Your task to perform on an android device: open app "WhatsApp Messenger" (install if not already installed), go to login, and select forgot password Image 0: 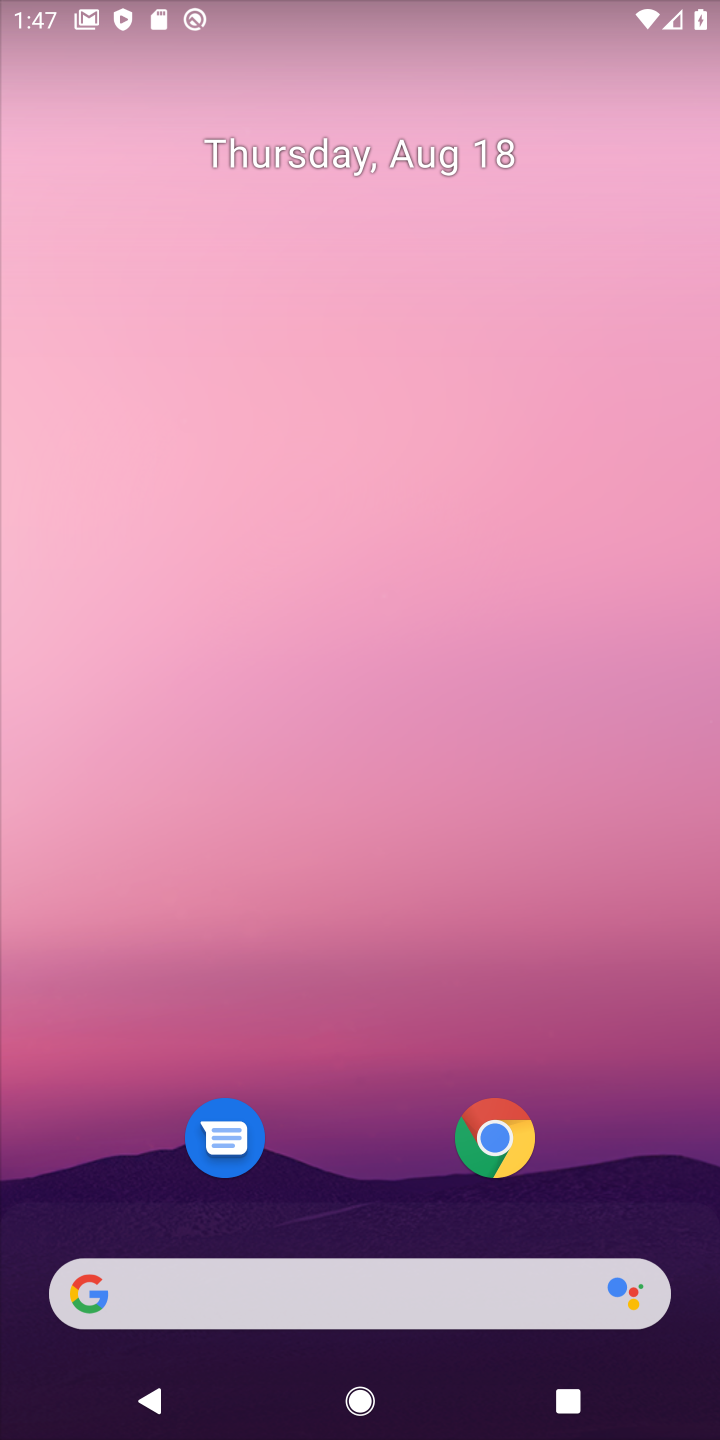
Step 0: drag from (457, 1226) to (569, 275)
Your task to perform on an android device: open app "WhatsApp Messenger" (install if not already installed), go to login, and select forgot password Image 1: 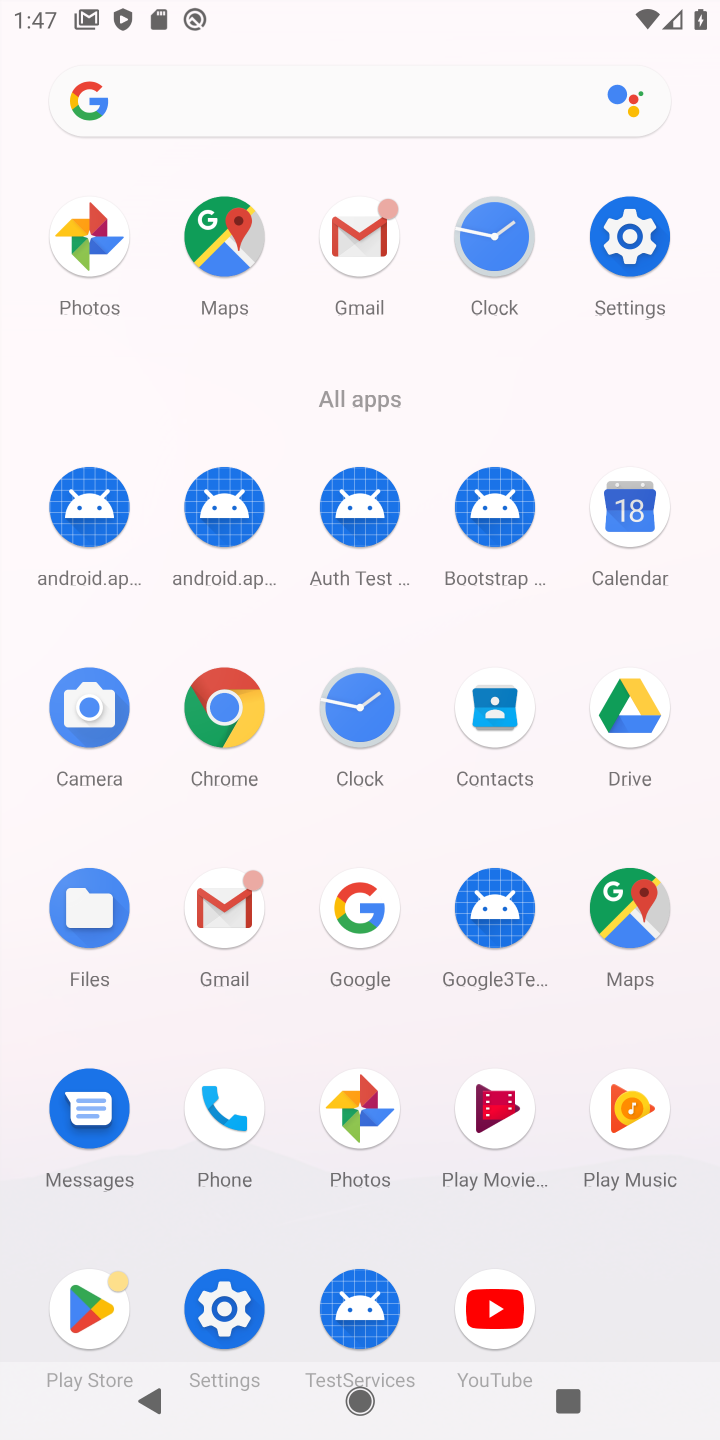
Step 1: drag from (448, 763) to (601, 188)
Your task to perform on an android device: open app "WhatsApp Messenger" (install if not already installed), go to login, and select forgot password Image 2: 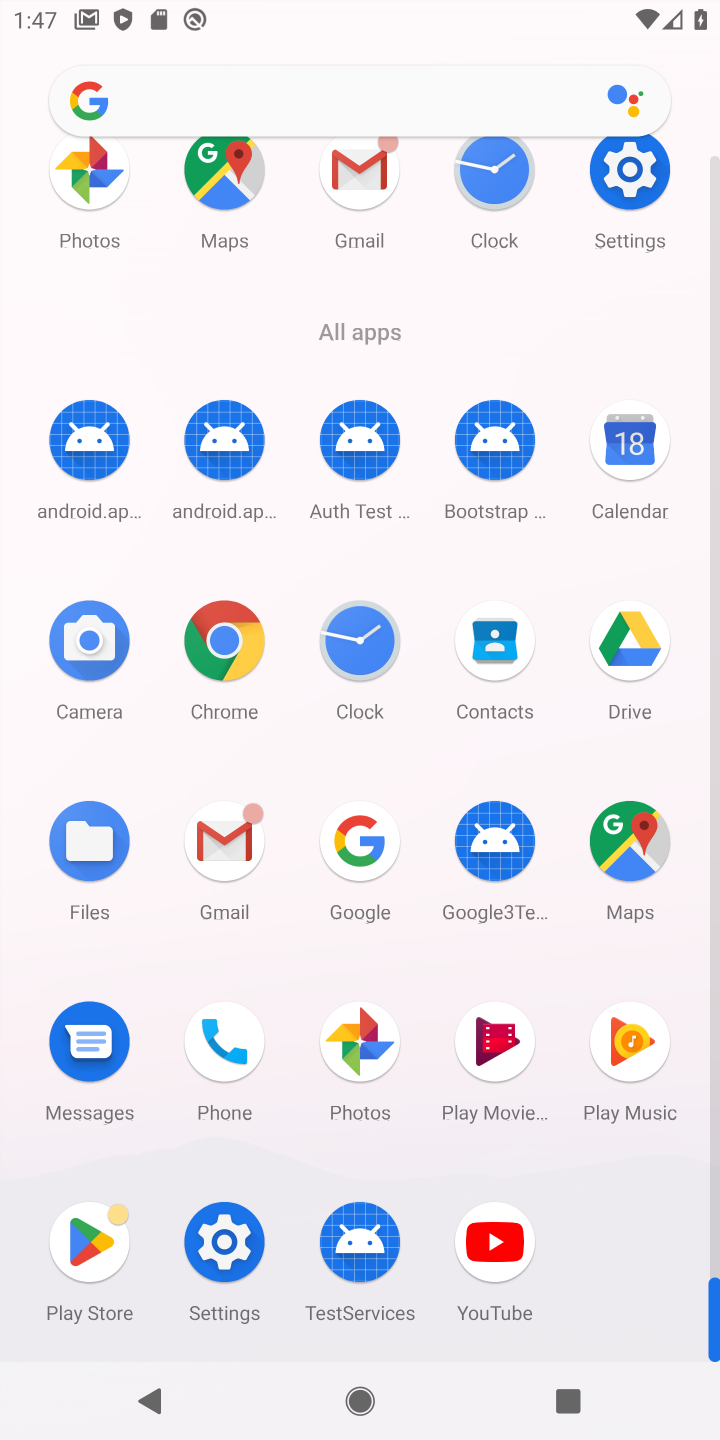
Step 2: click (86, 1260)
Your task to perform on an android device: open app "WhatsApp Messenger" (install if not already installed), go to login, and select forgot password Image 3: 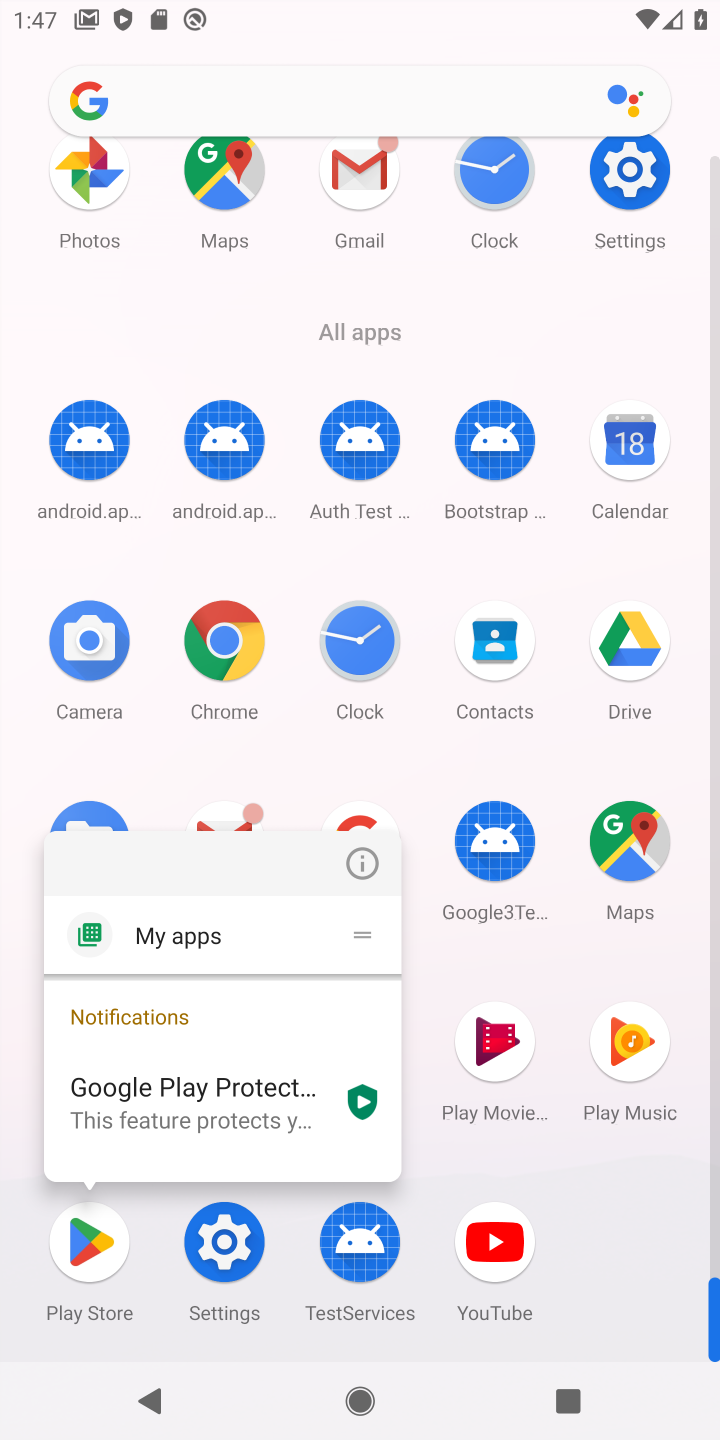
Step 3: click (95, 1267)
Your task to perform on an android device: open app "WhatsApp Messenger" (install if not already installed), go to login, and select forgot password Image 4: 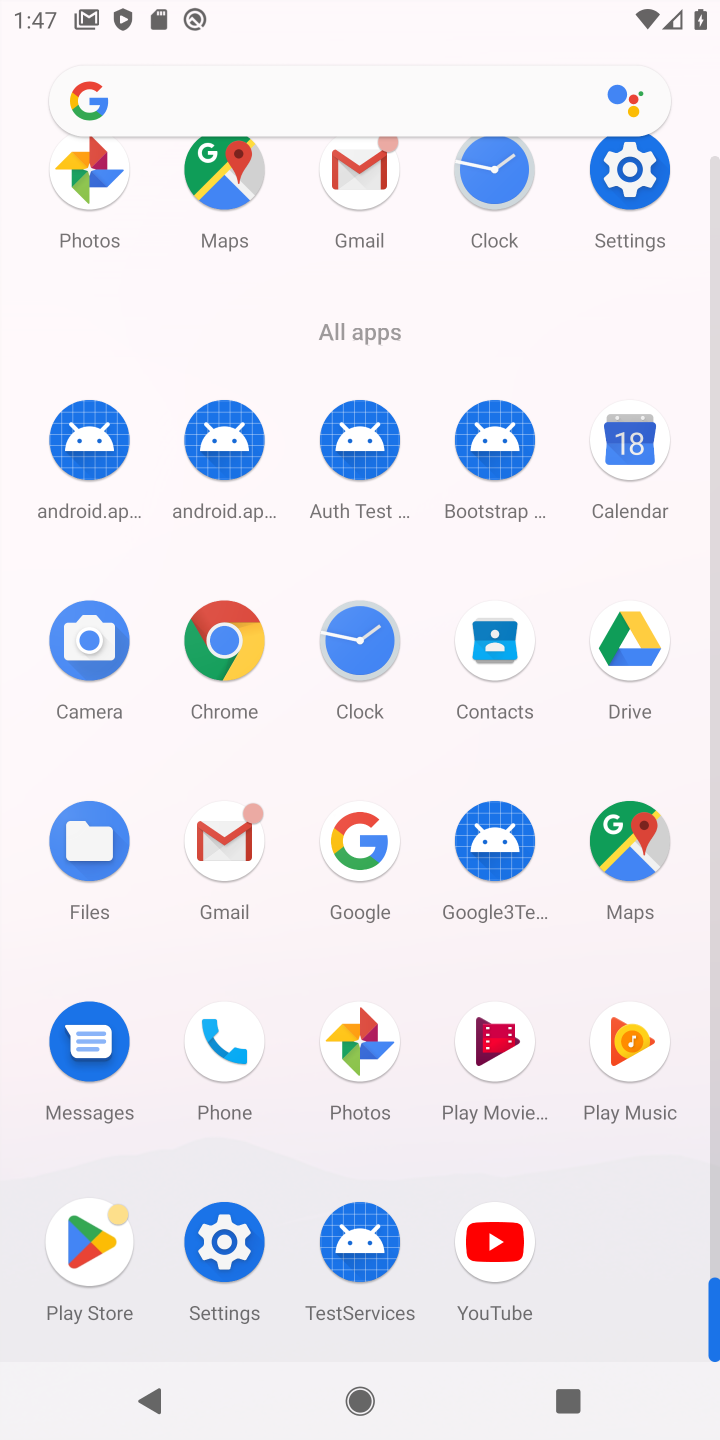
Step 4: click (92, 1263)
Your task to perform on an android device: open app "WhatsApp Messenger" (install if not already installed), go to login, and select forgot password Image 5: 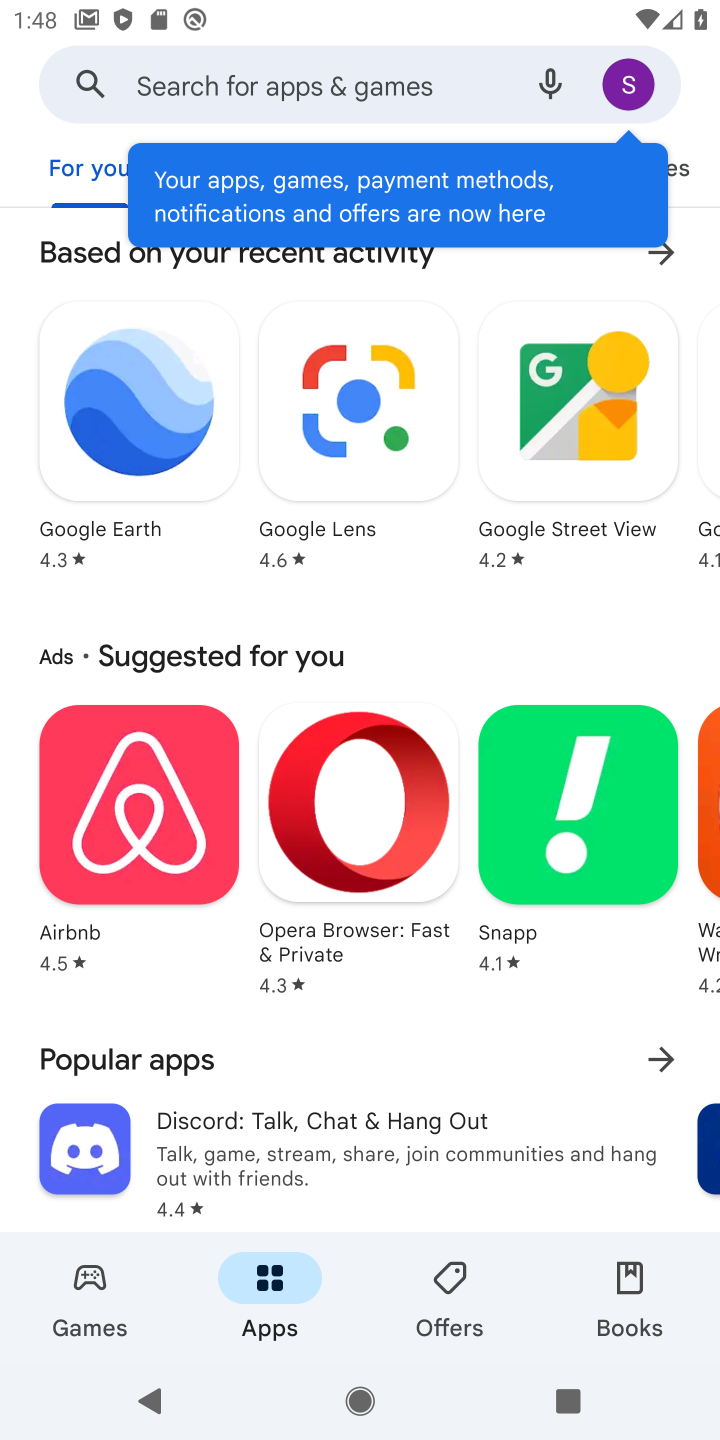
Step 5: click (274, 90)
Your task to perform on an android device: open app "WhatsApp Messenger" (install if not already installed), go to login, and select forgot password Image 6: 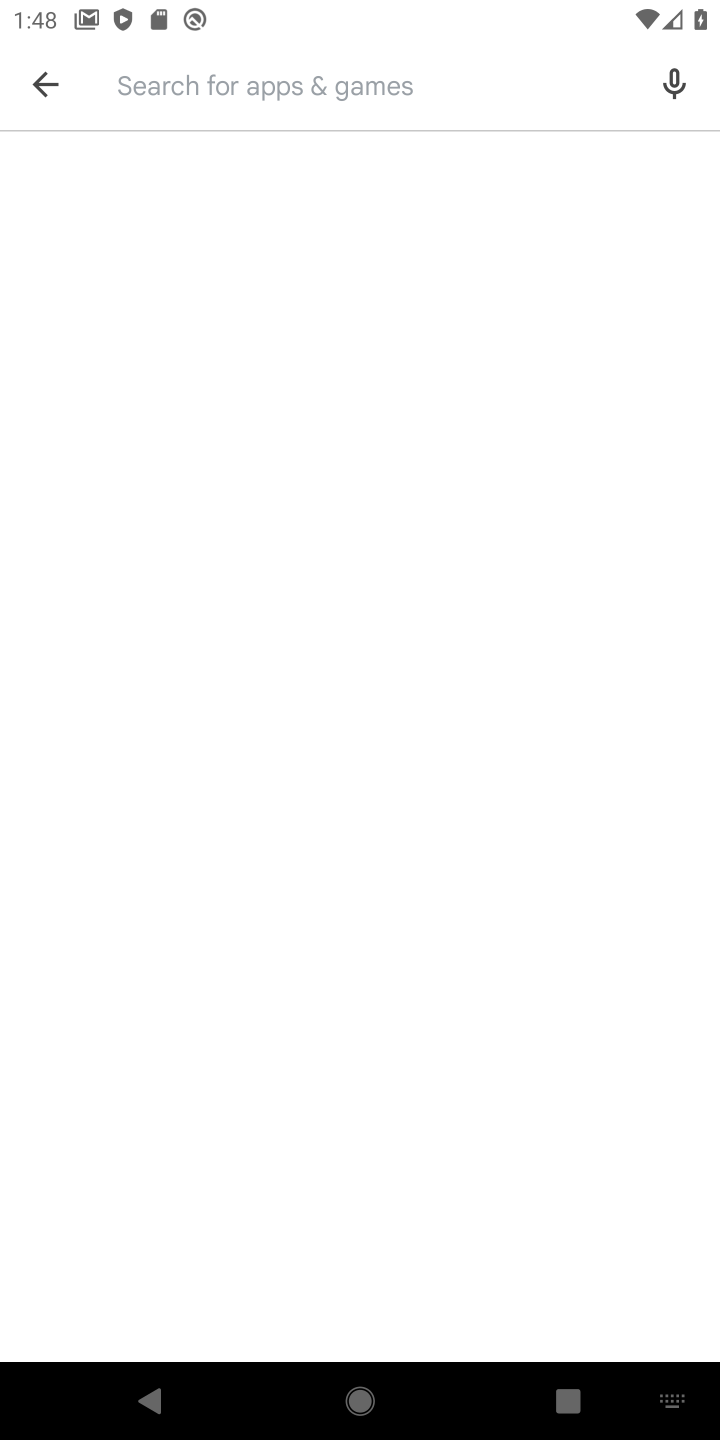
Step 6: click (334, 89)
Your task to perform on an android device: open app "WhatsApp Messenger" (install if not already installed), go to login, and select forgot password Image 7: 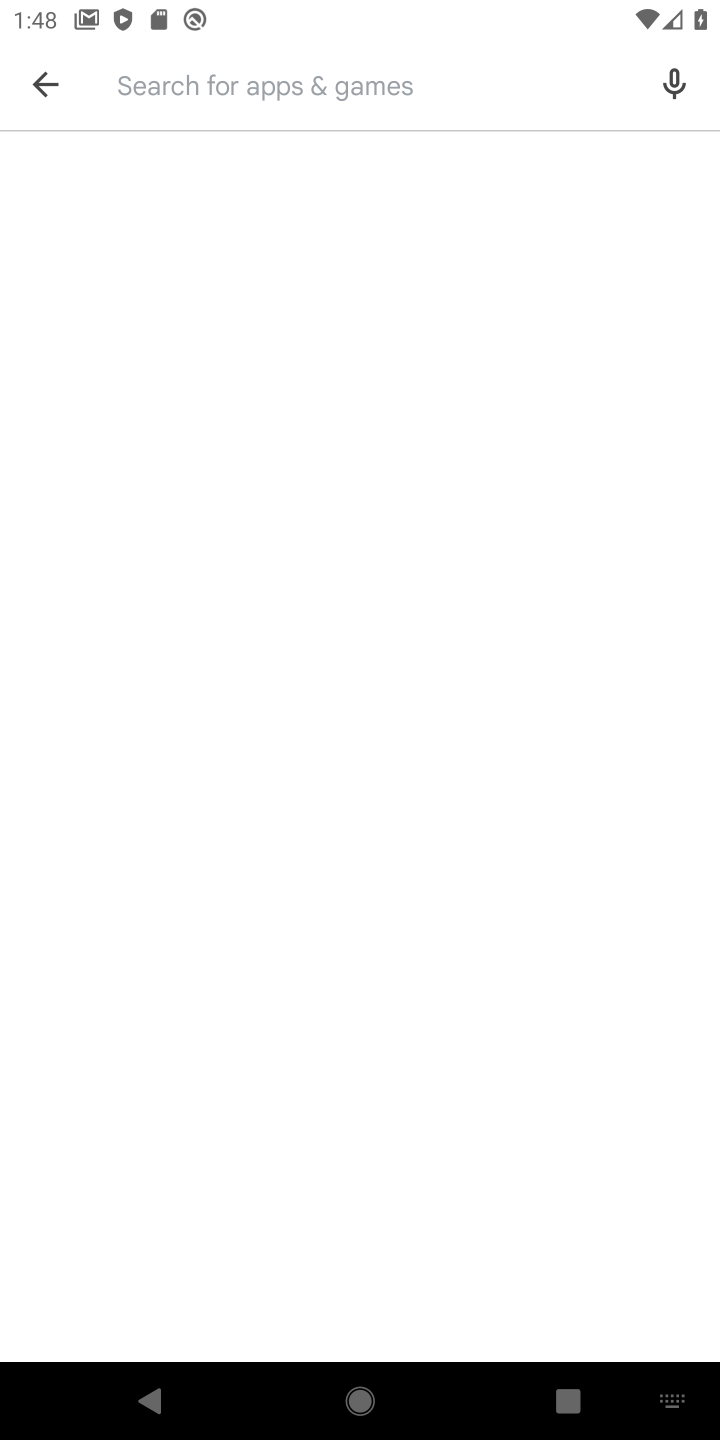
Step 7: type "WhatsApp Messenger"
Your task to perform on an android device: open app "WhatsApp Messenger" (install if not already installed), go to login, and select forgot password Image 8: 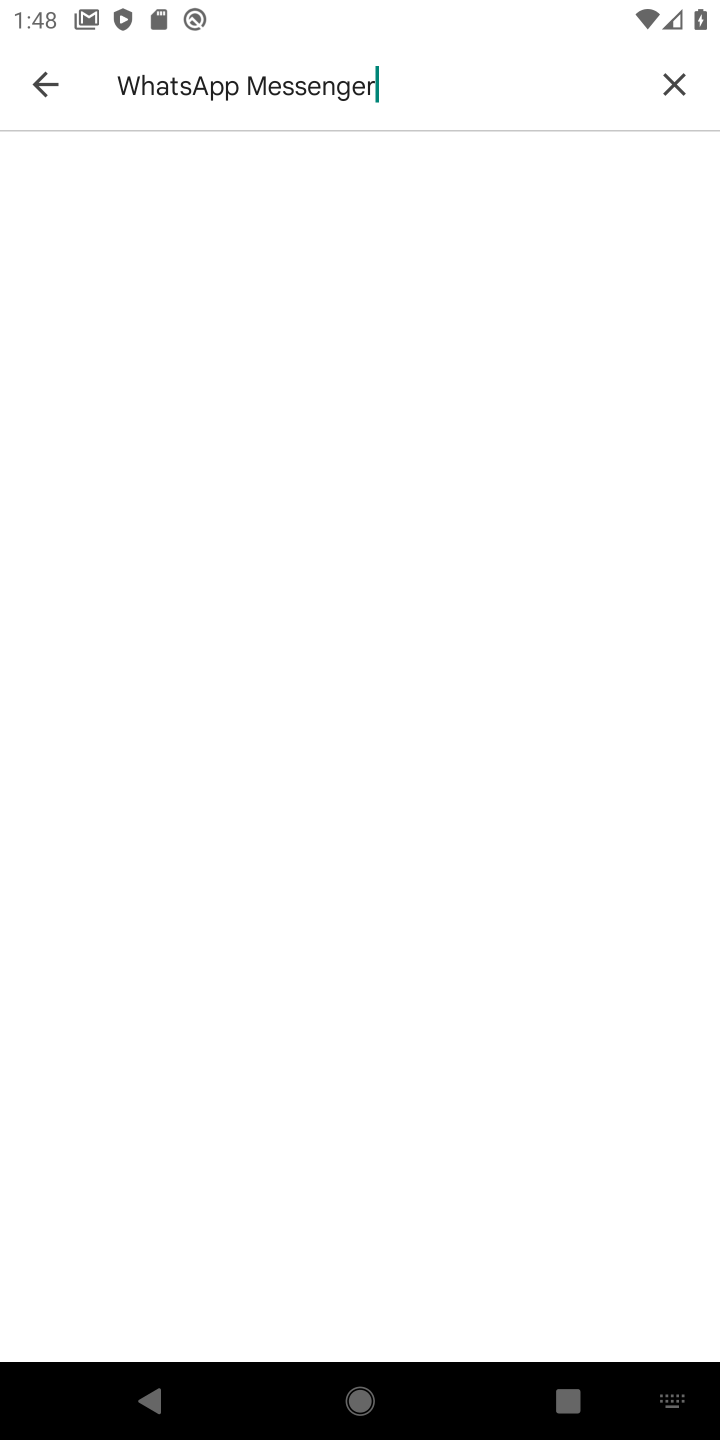
Step 8: type ""
Your task to perform on an android device: open app "WhatsApp Messenger" (install if not already installed), go to login, and select forgot password Image 9: 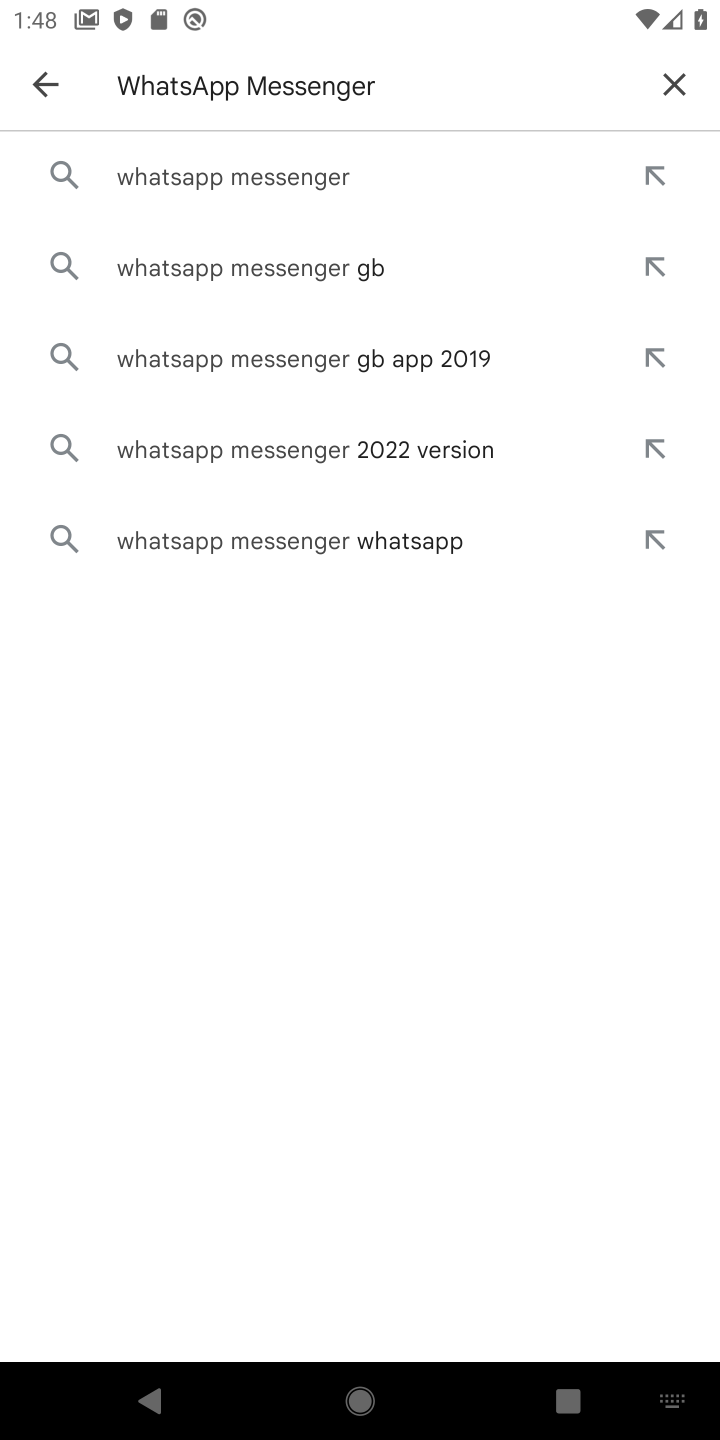
Step 9: click (279, 168)
Your task to perform on an android device: open app "WhatsApp Messenger" (install if not already installed), go to login, and select forgot password Image 10: 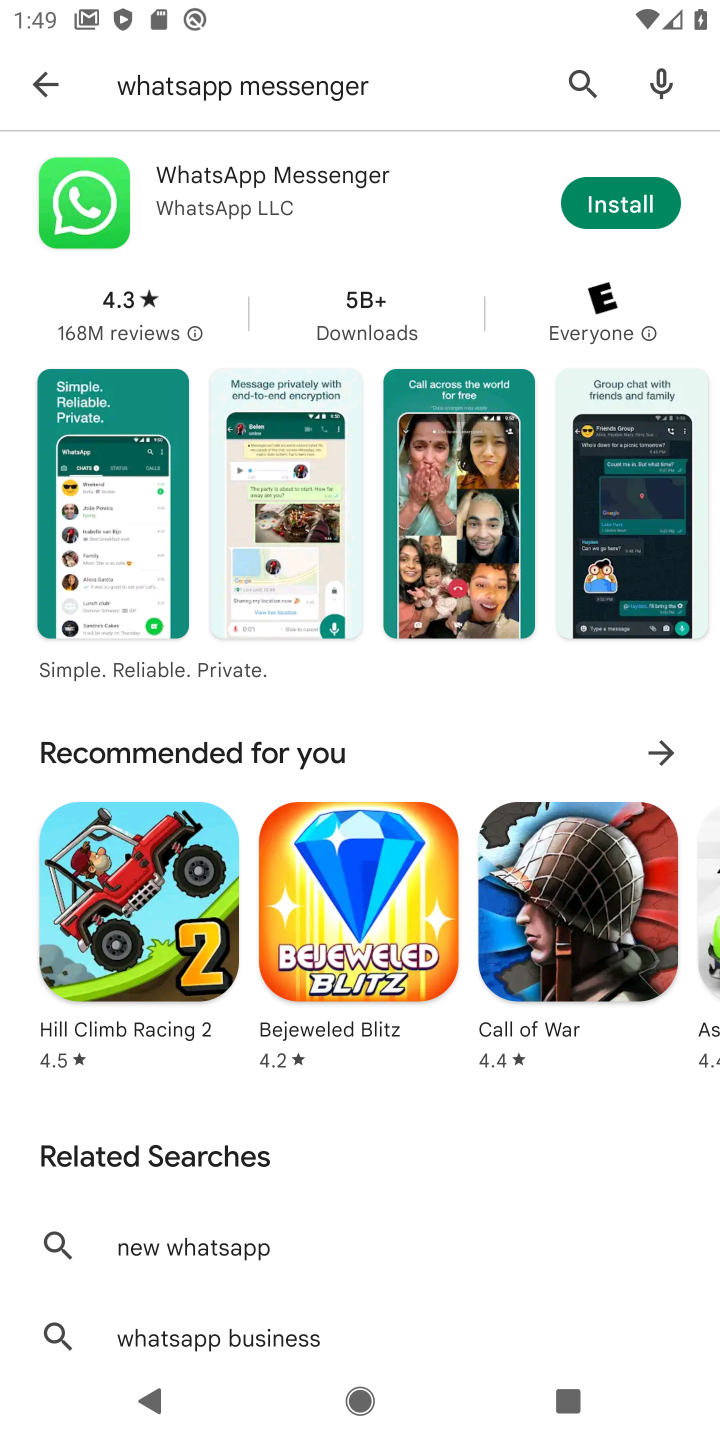
Step 10: click (610, 218)
Your task to perform on an android device: open app "WhatsApp Messenger" (install if not already installed), go to login, and select forgot password Image 11: 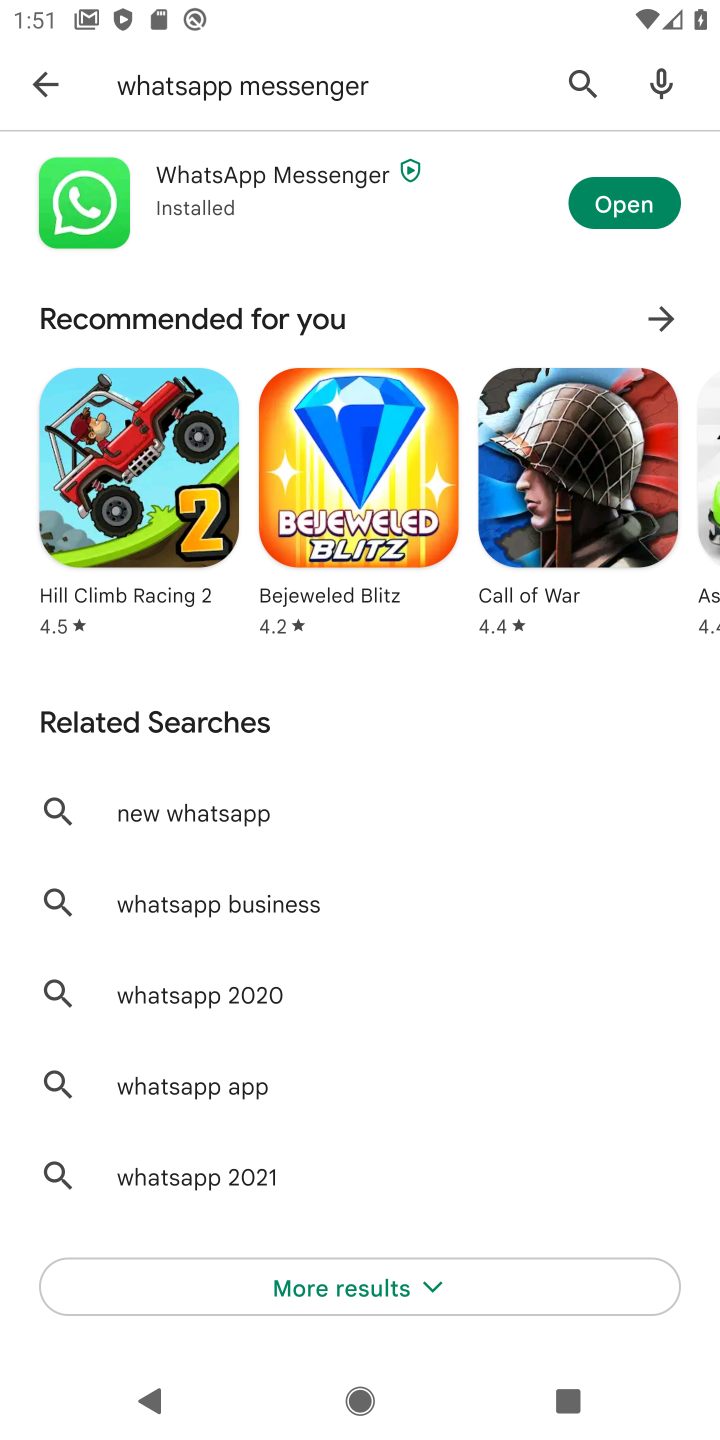
Step 11: click (641, 214)
Your task to perform on an android device: open app "WhatsApp Messenger" (install if not already installed), go to login, and select forgot password Image 12: 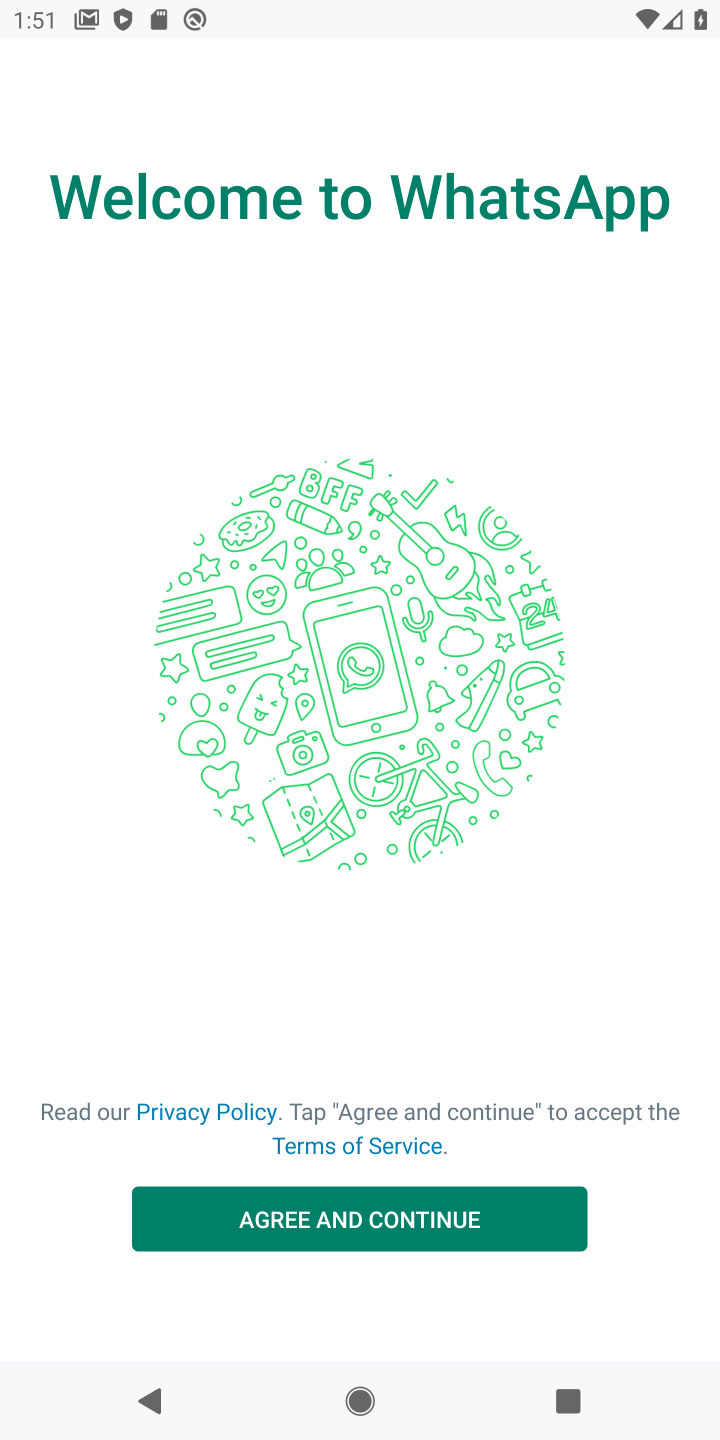
Step 12: task complete